Your task to perform on an android device: add a contact Image 0: 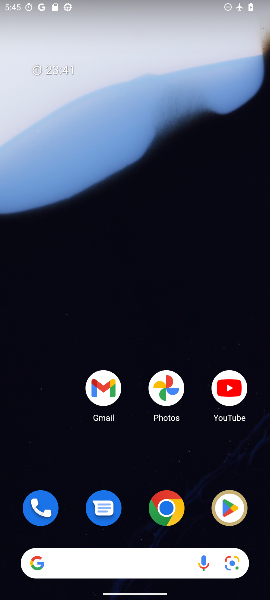
Step 0: drag from (141, 499) to (120, 6)
Your task to perform on an android device: add a contact Image 1: 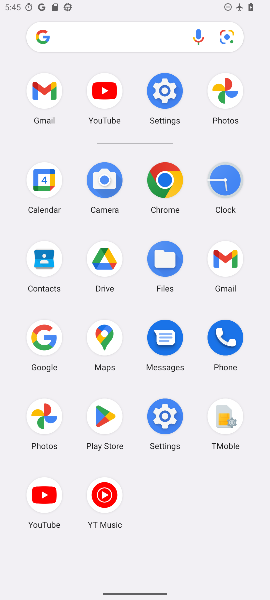
Step 1: click (44, 253)
Your task to perform on an android device: add a contact Image 2: 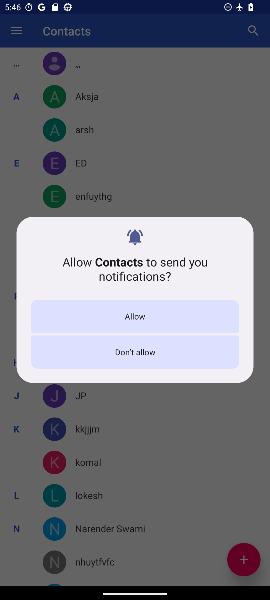
Step 2: drag from (158, 403) to (154, 104)
Your task to perform on an android device: add a contact Image 3: 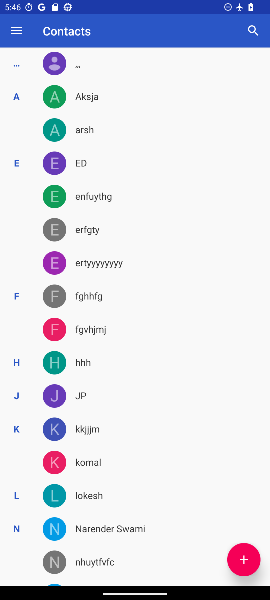
Step 3: click (241, 568)
Your task to perform on an android device: add a contact Image 4: 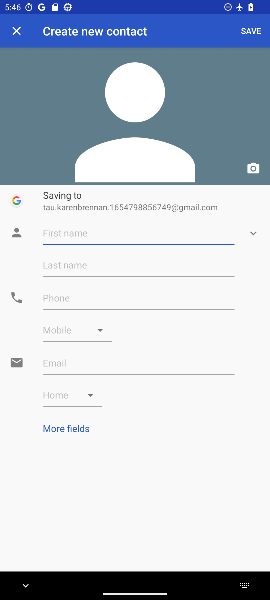
Step 4: click (82, 232)
Your task to perform on an android device: add a contact Image 5: 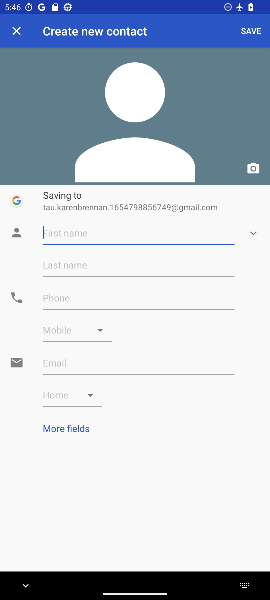
Step 5: type "jmkmkk"
Your task to perform on an android device: add a contact Image 6: 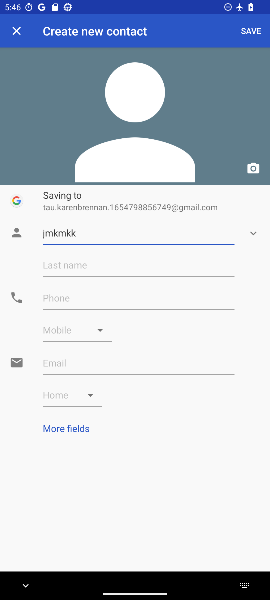
Step 6: click (256, 32)
Your task to perform on an android device: add a contact Image 7: 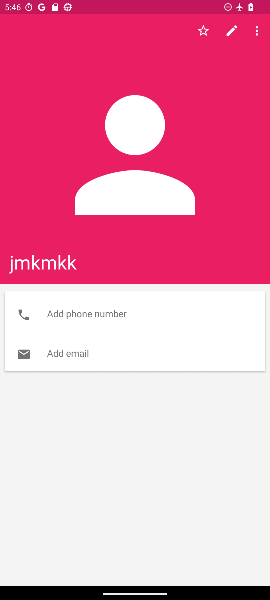
Step 7: task complete